Your task to perform on an android device: turn on improve location accuracy Image 0: 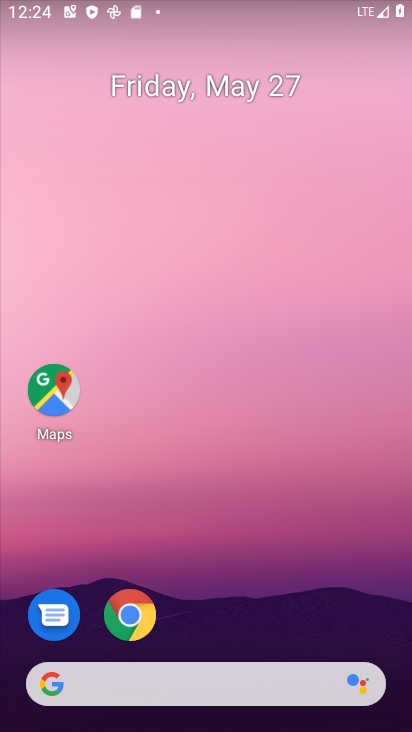
Step 0: drag from (153, 663) to (253, 55)
Your task to perform on an android device: turn on improve location accuracy Image 1: 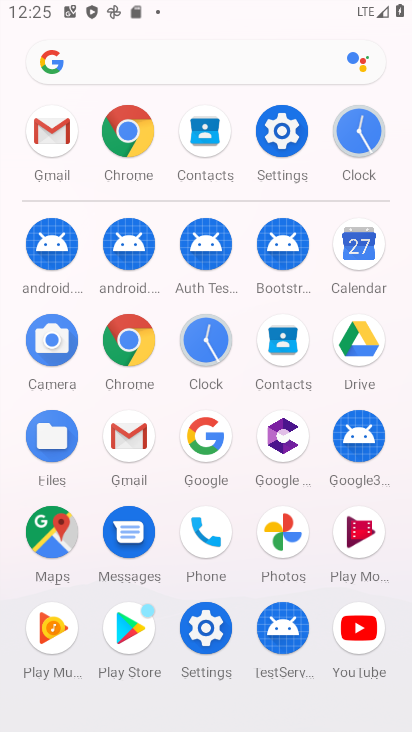
Step 1: click (196, 642)
Your task to perform on an android device: turn on improve location accuracy Image 2: 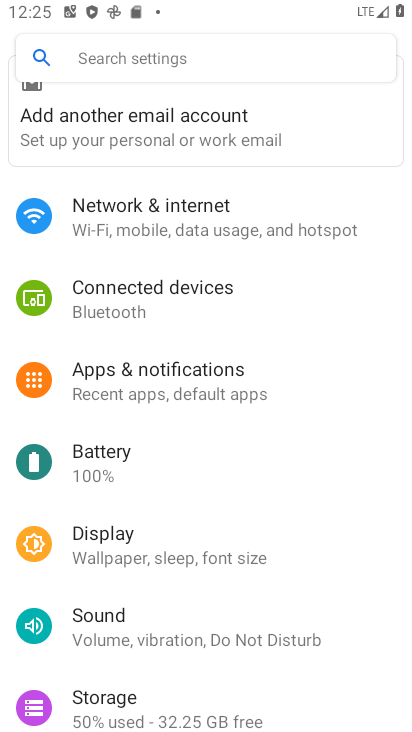
Step 2: drag from (190, 595) to (208, 67)
Your task to perform on an android device: turn on improve location accuracy Image 3: 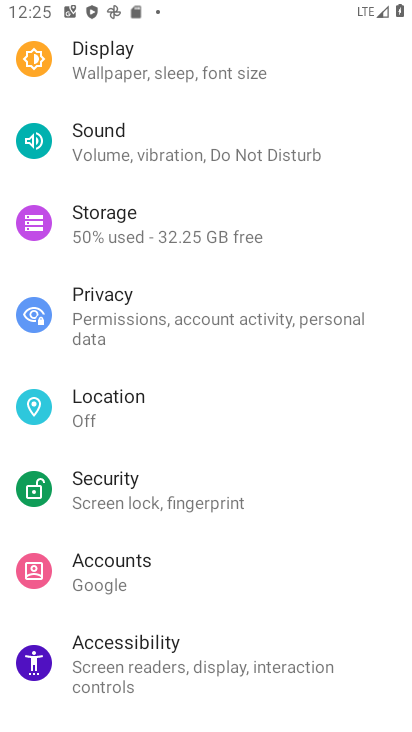
Step 3: click (139, 405)
Your task to perform on an android device: turn on improve location accuracy Image 4: 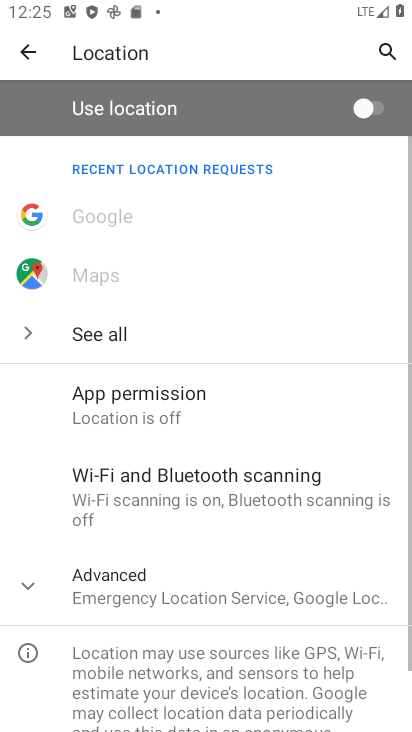
Step 4: click (186, 590)
Your task to perform on an android device: turn on improve location accuracy Image 5: 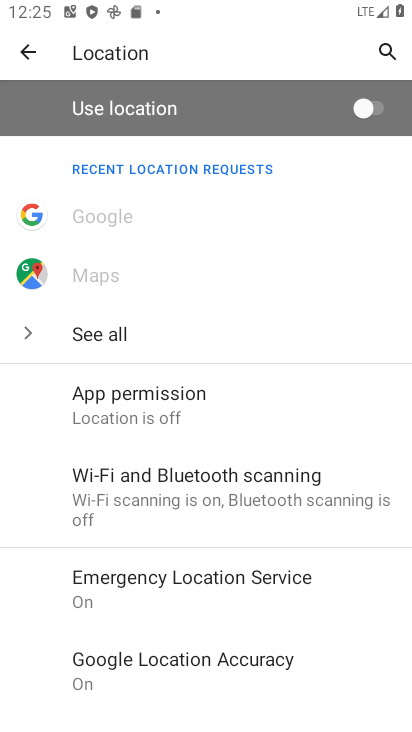
Step 5: task complete